Your task to perform on an android device: search for starred emails in the gmail app Image 0: 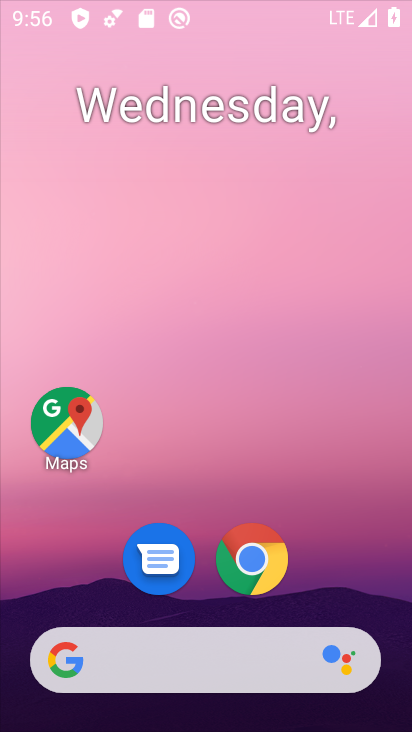
Step 0: drag from (356, 542) to (324, 59)
Your task to perform on an android device: search for starred emails in the gmail app Image 1: 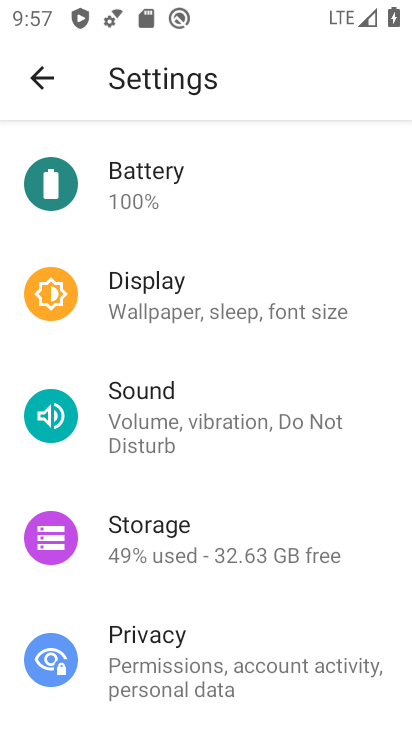
Step 1: press home button
Your task to perform on an android device: search for starred emails in the gmail app Image 2: 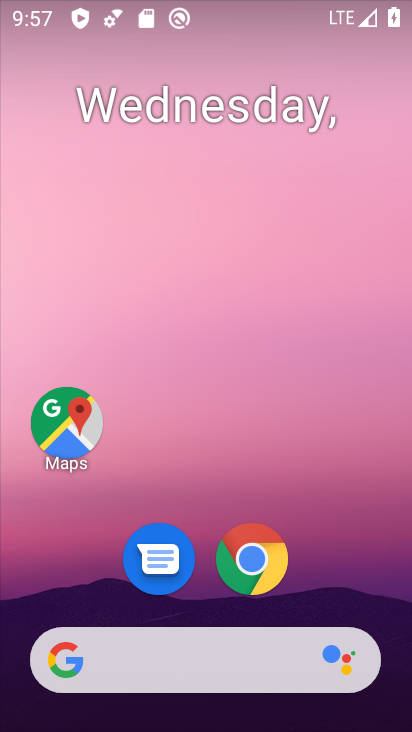
Step 2: drag from (326, 541) to (311, 84)
Your task to perform on an android device: search for starred emails in the gmail app Image 3: 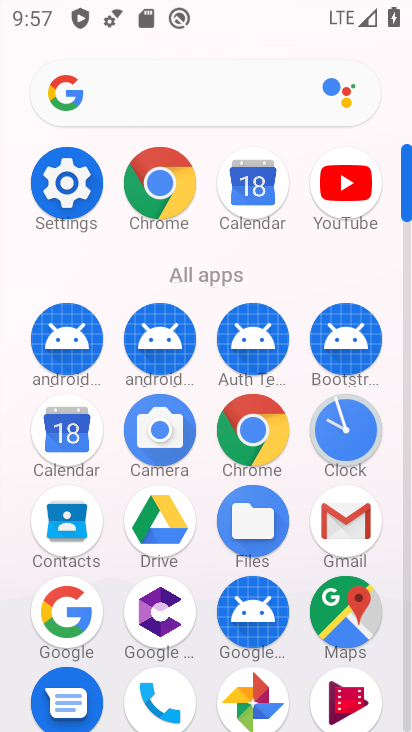
Step 3: click (364, 533)
Your task to perform on an android device: search for starred emails in the gmail app Image 4: 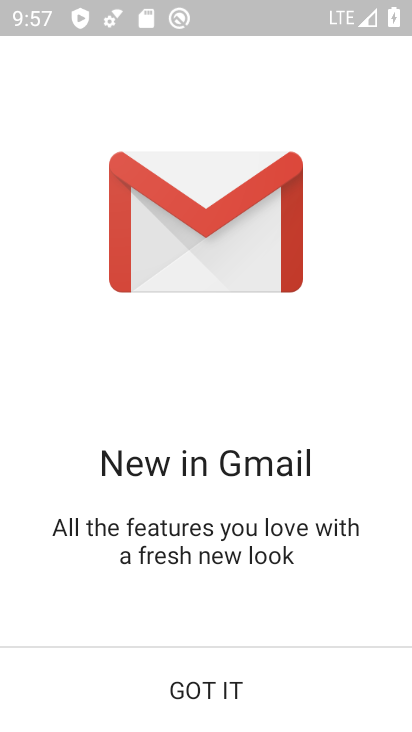
Step 4: click (203, 701)
Your task to perform on an android device: search for starred emails in the gmail app Image 5: 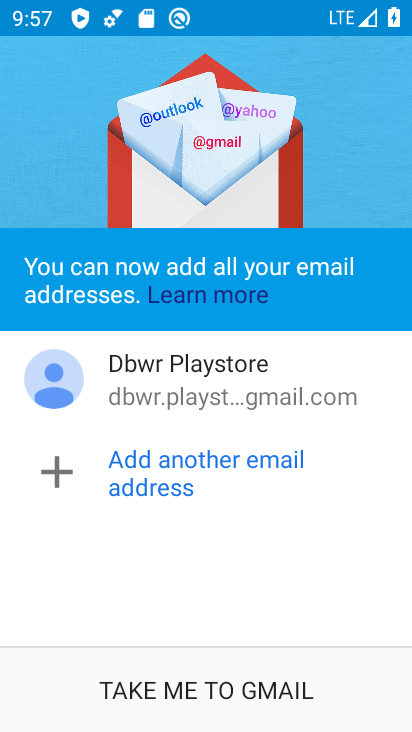
Step 5: click (203, 701)
Your task to perform on an android device: search for starred emails in the gmail app Image 6: 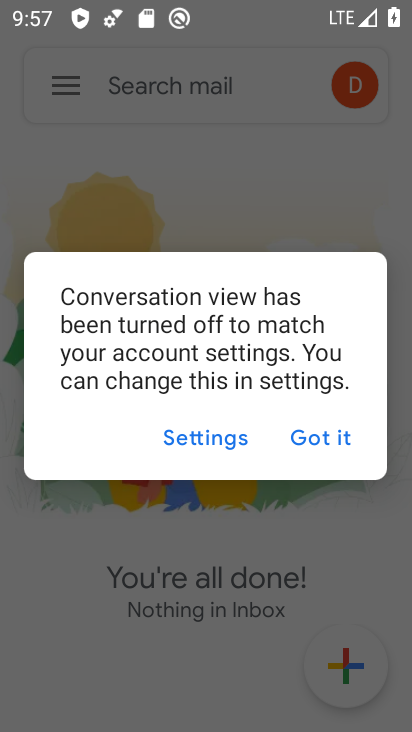
Step 6: click (328, 444)
Your task to perform on an android device: search for starred emails in the gmail app Image 7: 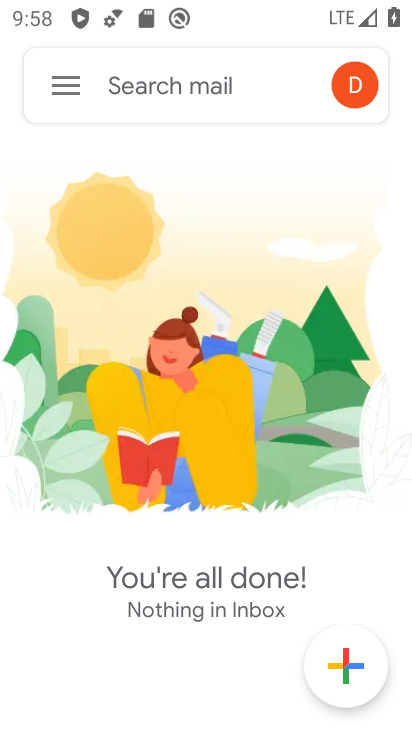
Step 7: click (58, 82)
Your task to perform on an android device: search for starred emails in the gmail app Image 8: 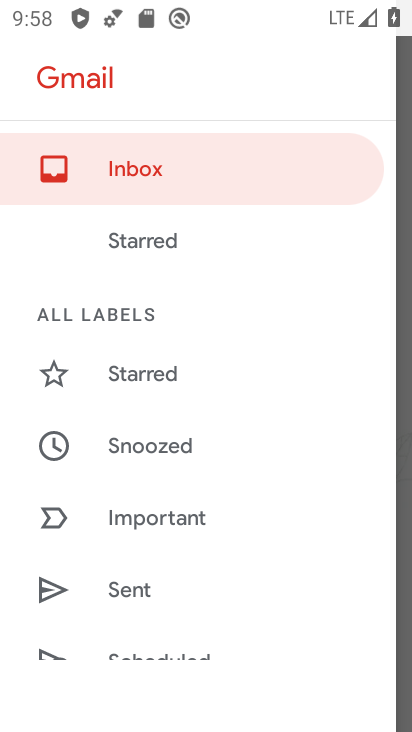
Step 8: click (115, 384)
Your task to perform on an android device: search for starred emails in the gmail app Image 9: 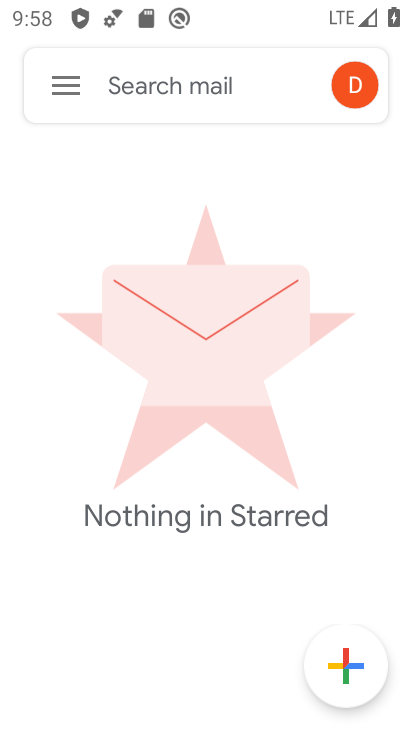
Step 9: task complete